Your task to perform on an android device: Show the shopping cart on costco. Search for rayovac triple a on costco, select the first entry, and add it to the cart. Image 0: 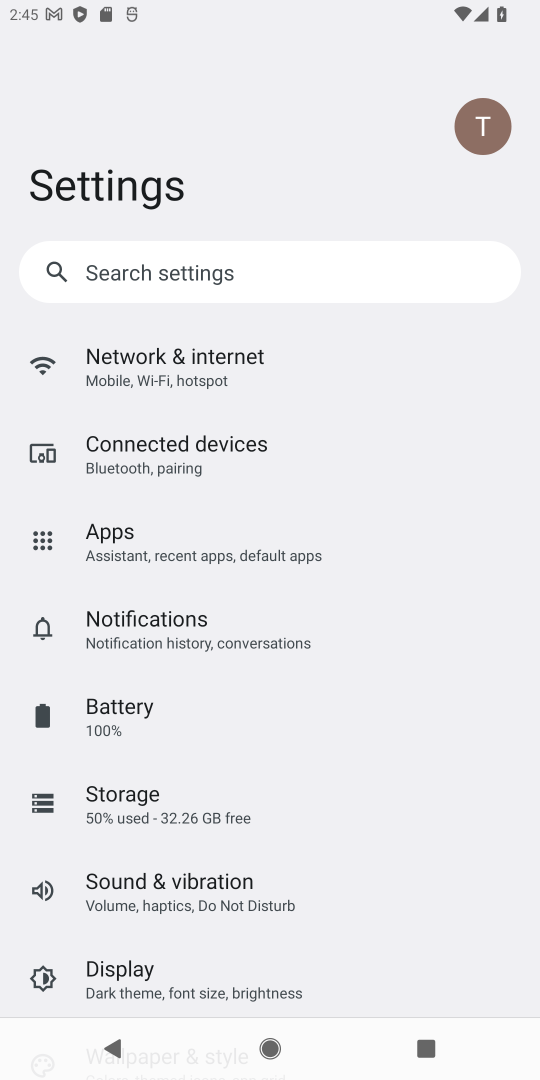
Step 0: press home button
Your task to perform on an android device: Show the shopping cart on costco. Search for rayovac triple a on costco, select the first entry, and add it to the cart. Image 1: 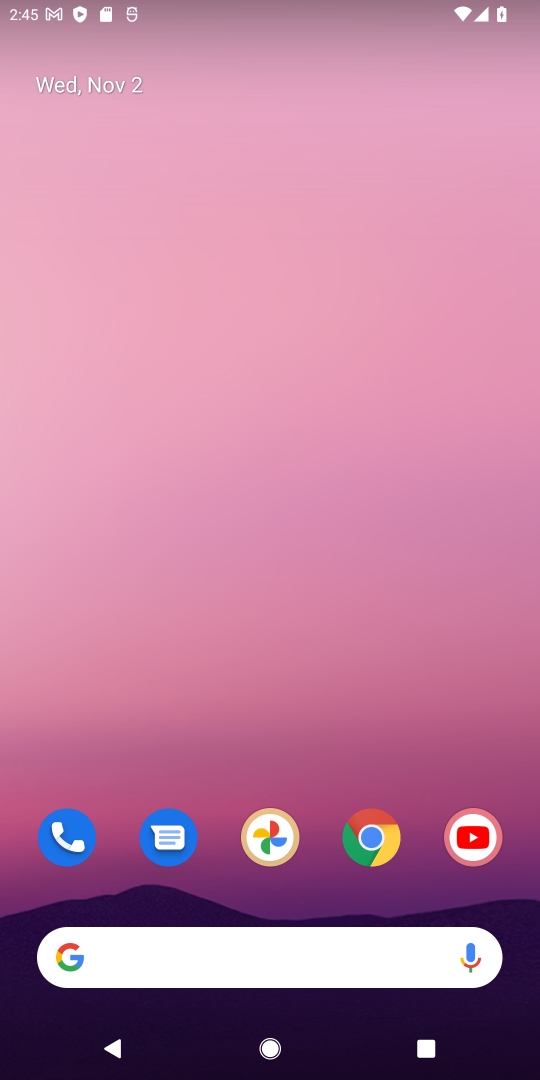
Step 1: drag from (310, 795) to (268, 48)
Your task to perform on an android device: Show the shopping cart on costco. Search for rayovac triple a on costco, select the first entry, and add it to the cart. Image 2: 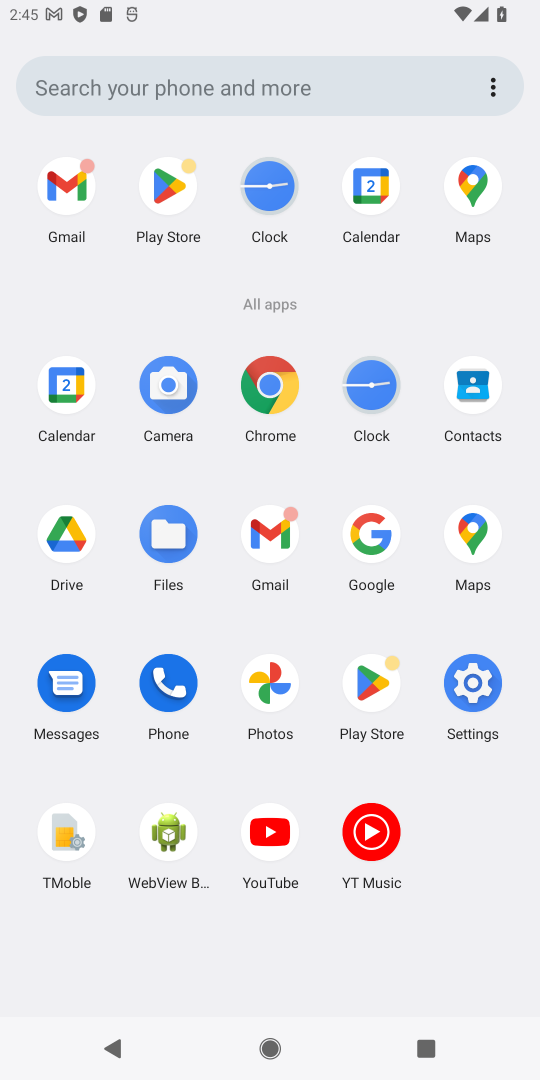
Step 2: click (269, 375)
Your task to perform on an android device: Show the shopping cart on costco. Search for rayovac triple a on costco, select the first entry, and add it to the cart. Image 3: 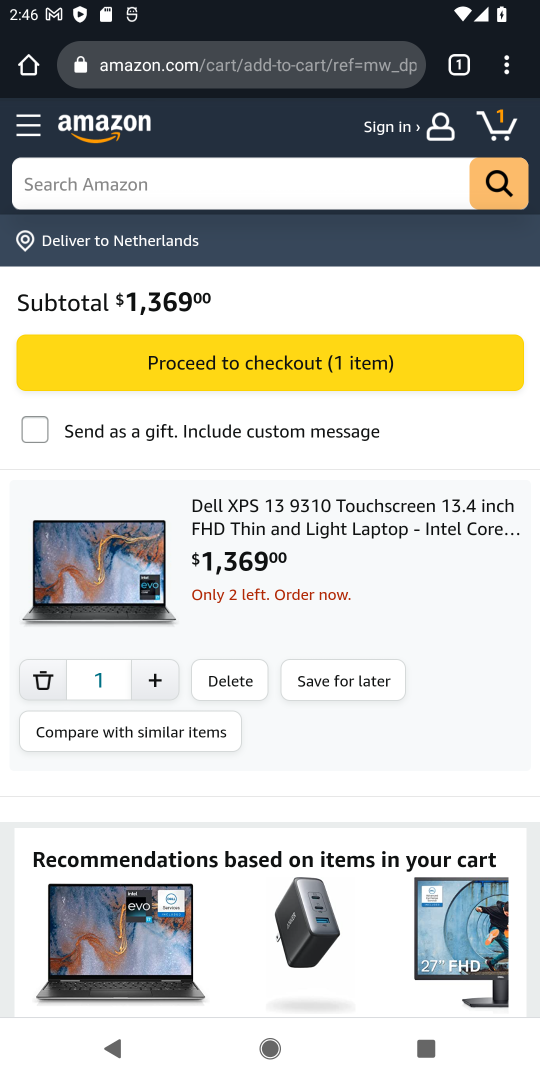
Step 3: click (195, 55)
Your task to perform on an android device: Show the shopping cart on costco. Search for rayovac triple a on costco, select the first entry, and add it to the cart. Image 4: 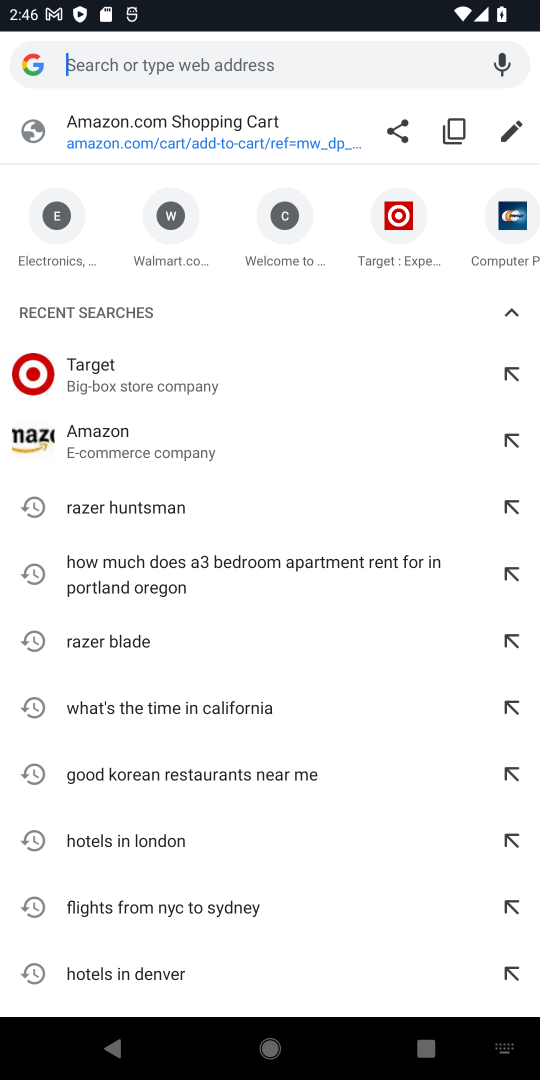
Step 4: type "costco"
Your task to perform on an android device: Show the shopping cart on costco. Search for rayovac triple a on costco, select the first entry, and add it to the cart. Image 5: 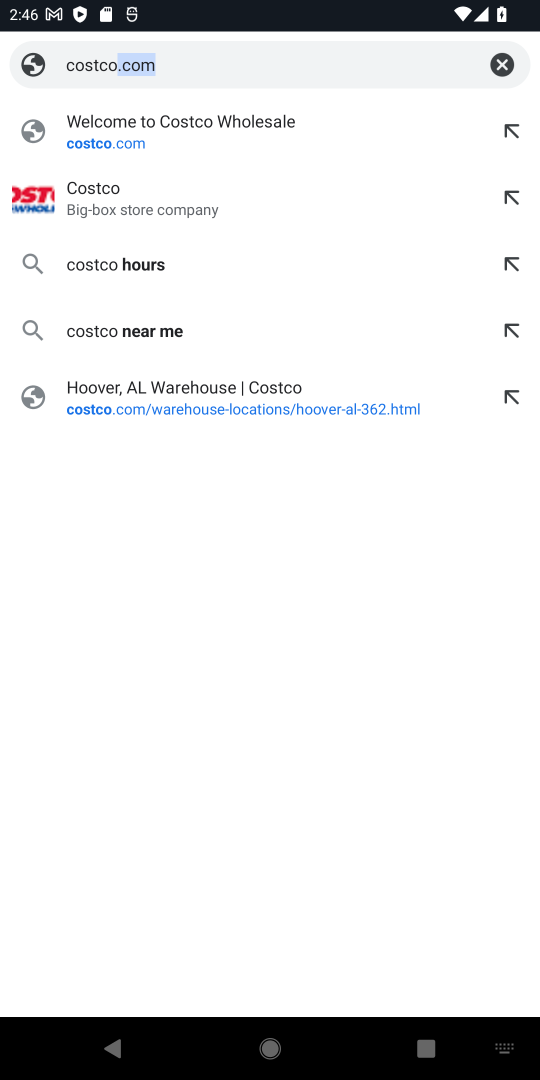
Step 5: click (131, 129)
Your task to perform on an android device: Show the shopping cart on costco. Search for rayovac triple a on costco, select the first entry, and add it to the cart. Image 6: 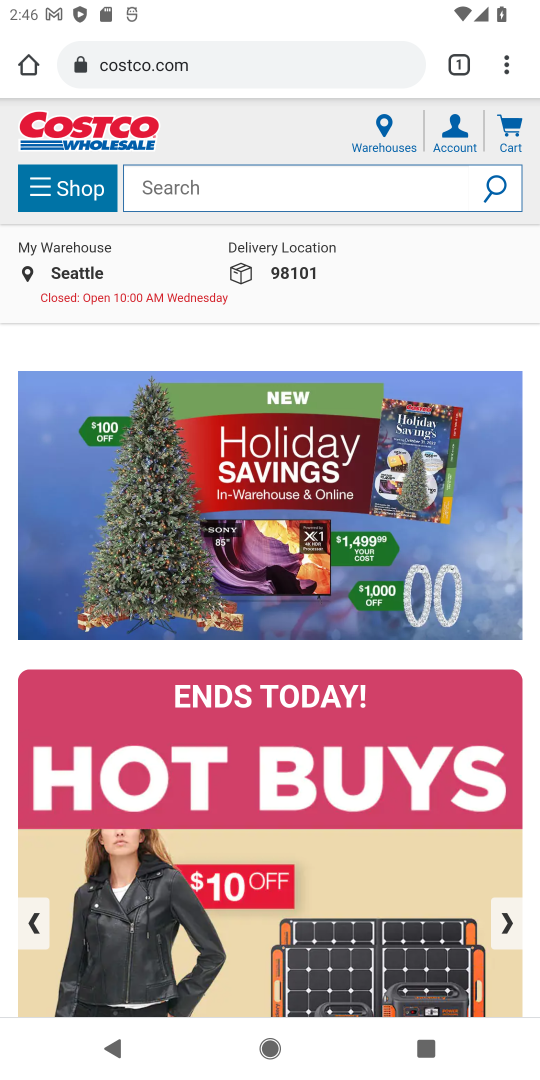
Step 6: click (212, 175)
Your task to perform on an android device: Show the shopping cart on costco. Search for rayovac triple a on costco, select the first entry, and add it to the cart. Image 7: 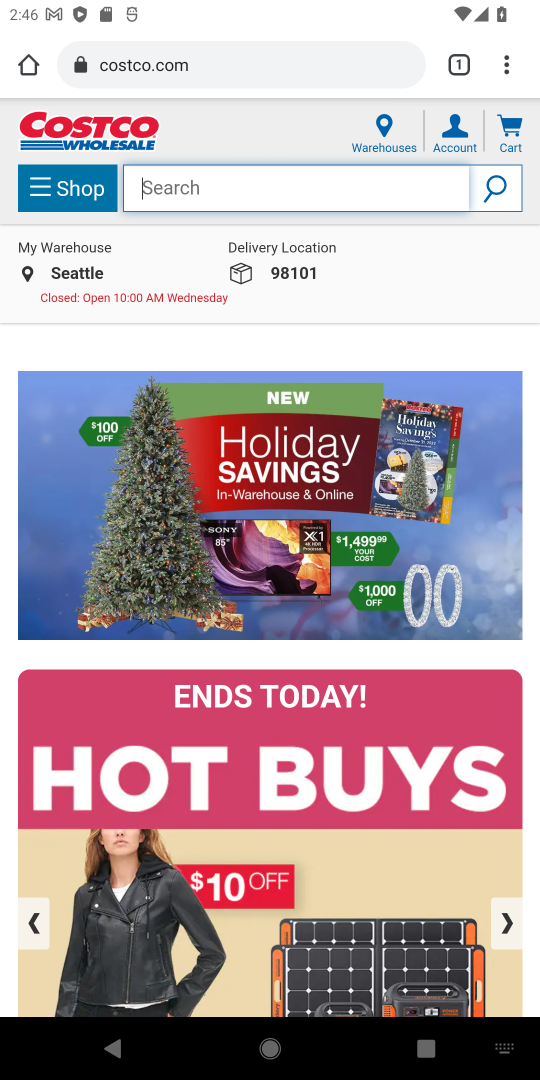
Step 7: type "rayovac triple a"
Your task to perform on an android device: Show the shopping cart on costco. Search for rayovac triple a on costco, select the first entry, and add it to the cart. Image 8: 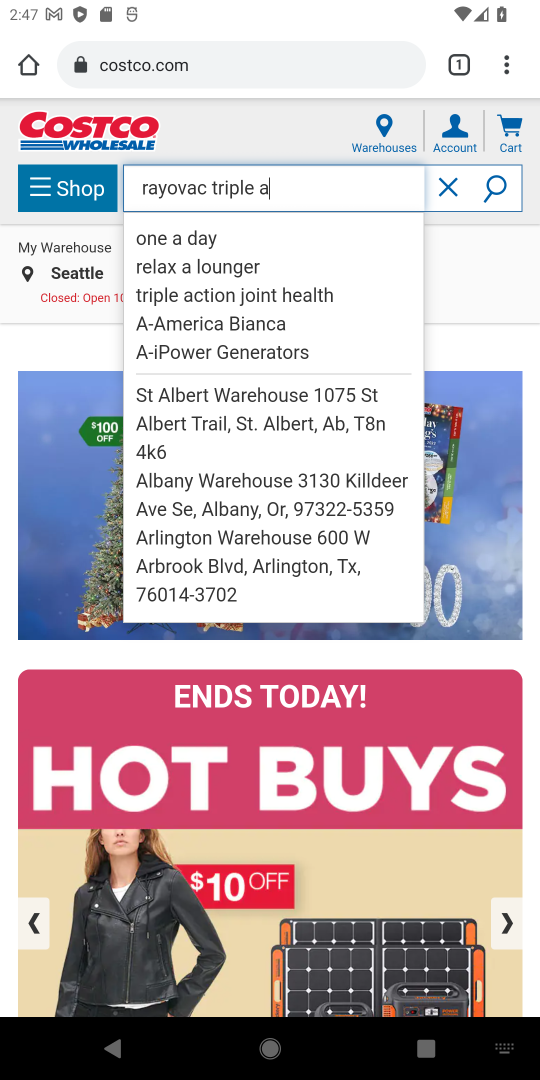
Step 8: task complete